Your task to perform on an android device: Check the weather Image 0: 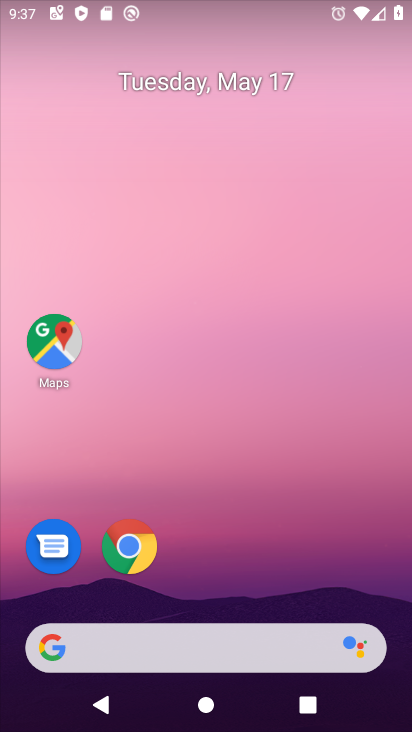
Step 0: drag from (263, 589) to (321, 29)
Your task to perform on an android device: Check the weather Image 1: 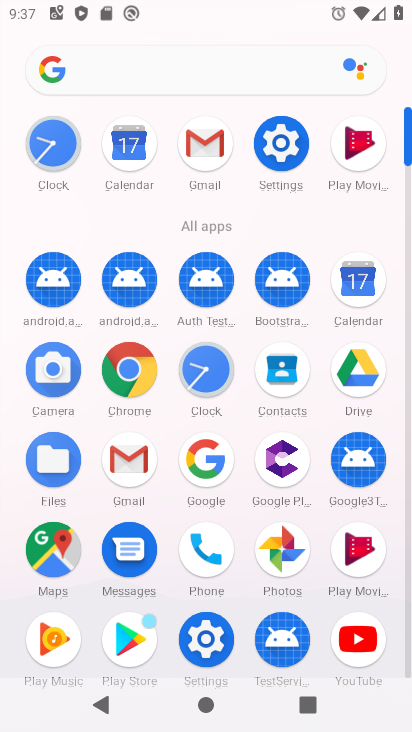
Step 1: click (153, 64)
Your task to perform on an android device: Check the weather Image 2: 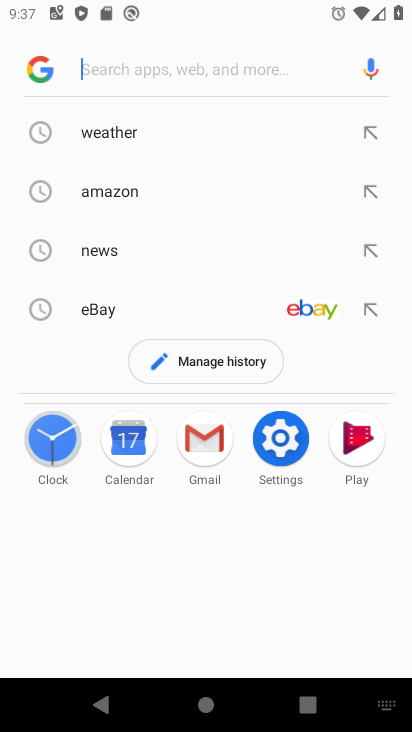
Step 2: type "weather"
Your task to perform on an android device: Check the weather Image 3: 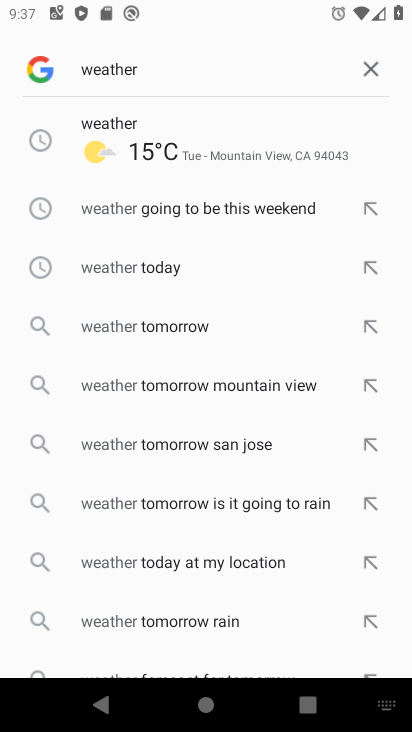
Step 3: click (143, 130)
Your task to perform on an android device: Check the weather Image 4: 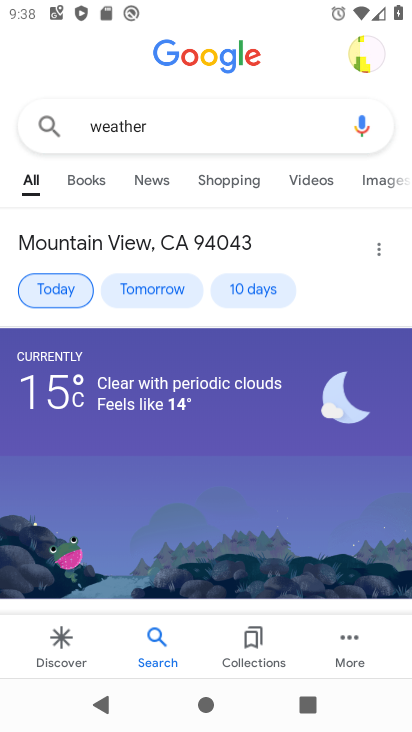
Step 4: task complete